Your task to perform on an android device: See recent photos Image 0: 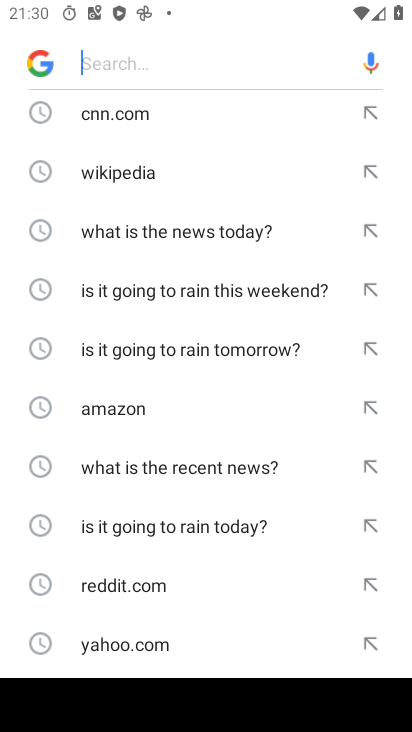
Step 0: press home button
Your task to perform on an android device: See recent photos Image 1: 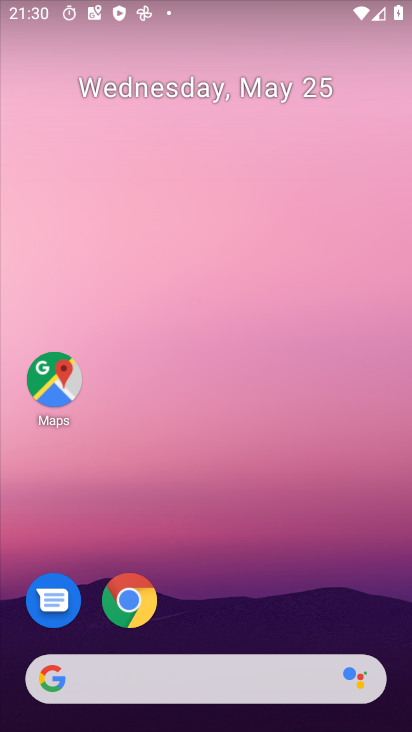
Step 1: drag from (335, 603) to (392, 185)
Your task to perform on an android device: See recent photos Image 2: 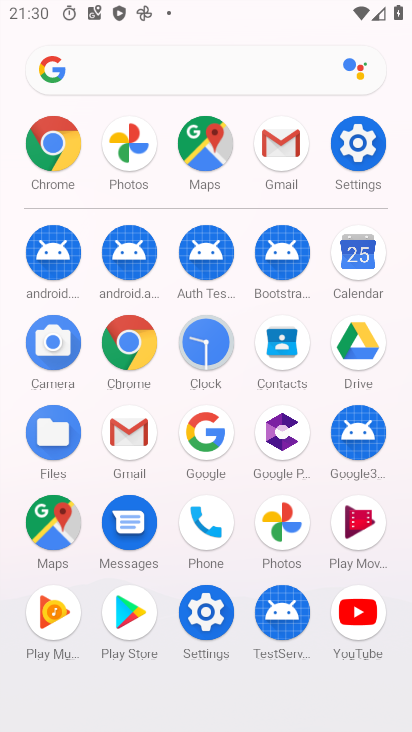
Step 2: click (281, 528)
Your task to perform on an android device: See recent photos Image 3: 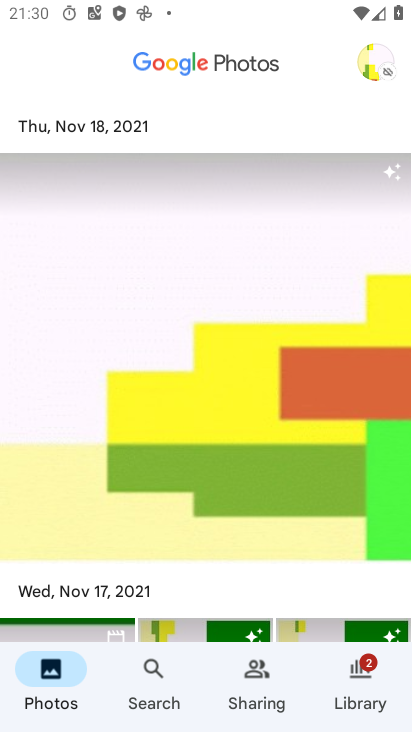
Step 3: task complete